Your task to perform on an android device: turn on notifications settings in the gmail app Image 0: 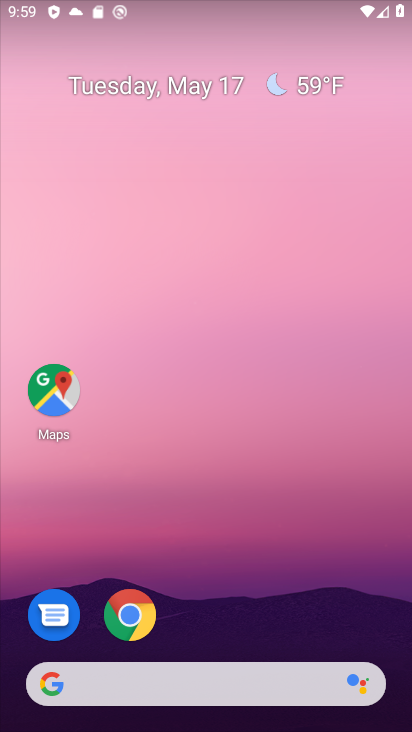
Step 0: drag from (245, 606) to (207, 159)
Your task to perform on an android device: turn on notifications settings in the gmail app Image 1: 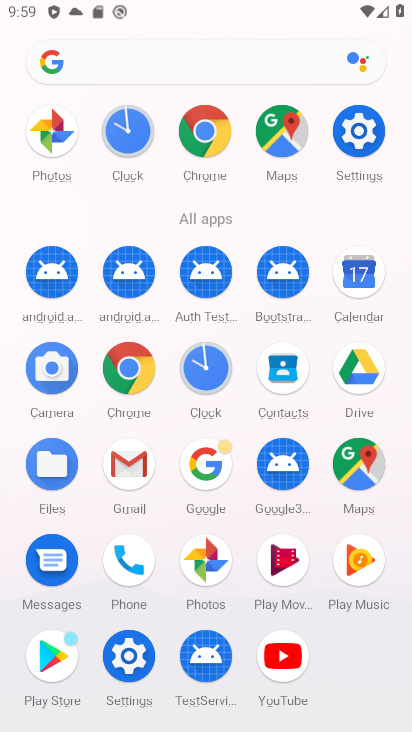
Step 1: click (109, 484)
Your task to perform on an android device: turn on notifications settings in the gmail app Image 2: 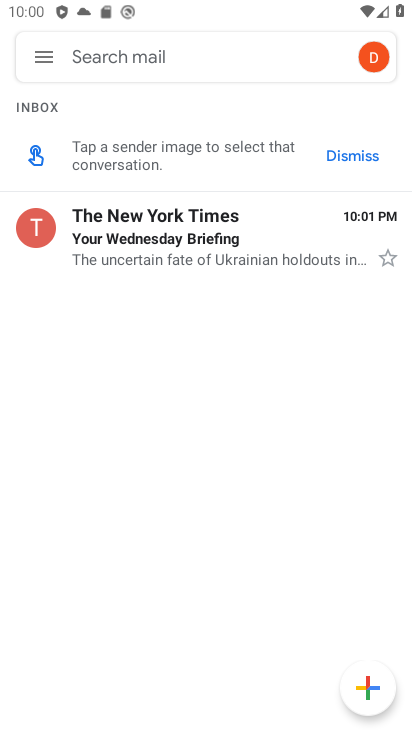
Step 2: click (45, 60)
Your task to perform on an android device: turn on notifications settings in the gmail app Image 3: 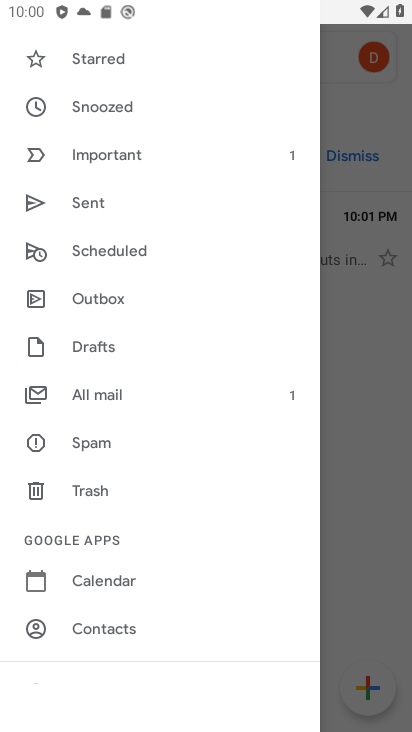
Step 3: drag from (146, 584) to (134, 362)
Your task to perform on an android device: turn on notifications settings in the gmail app Image 4: 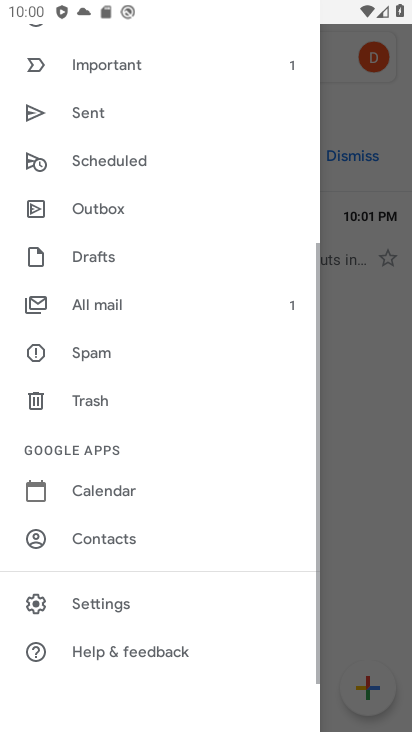
Step 4: click (127, 605)
Your task to perform on an android device: turn on notifications settings in the gmail app Image 5: 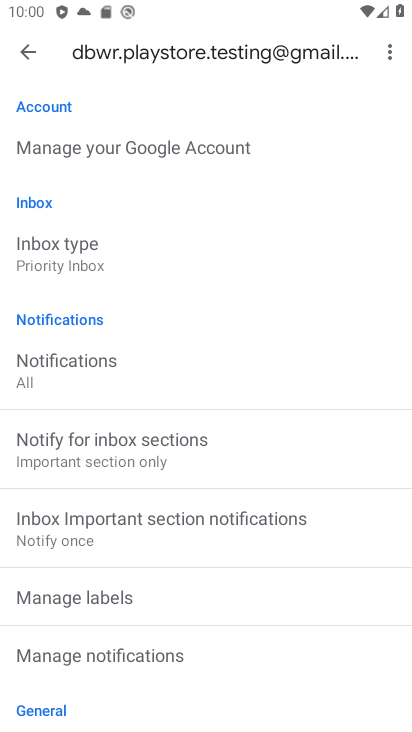
Step 5: click (102, 374)
Your task to perform on an android device: turn on notifications settings in the gmail app Image 6: 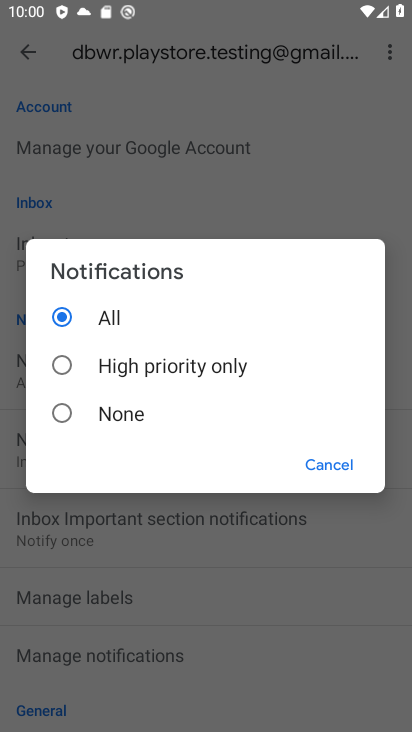
Step 6: task complete